Your task to perform on an android device: Open settings on Google Maps Image 0: 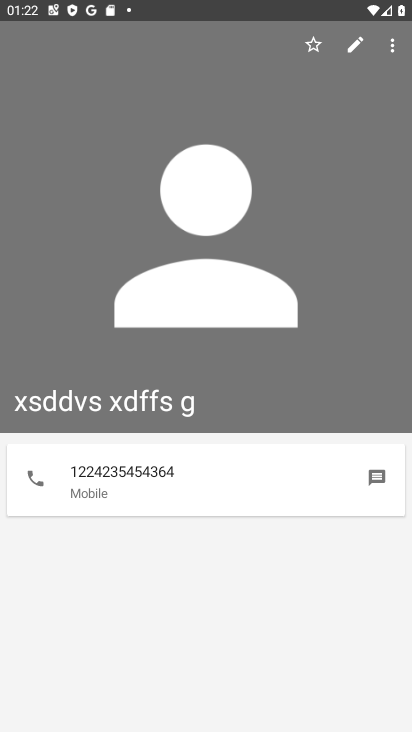
Step 0: press home button
Your task to perform on an android device: Open settings on Google Maps Image 1: 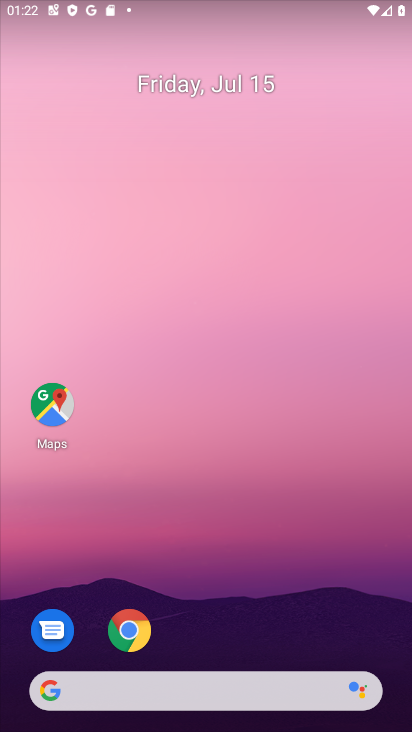
Step 1: click (258, 591)
Your task to perform on an android device: Open settings on Google Maps Image 2: 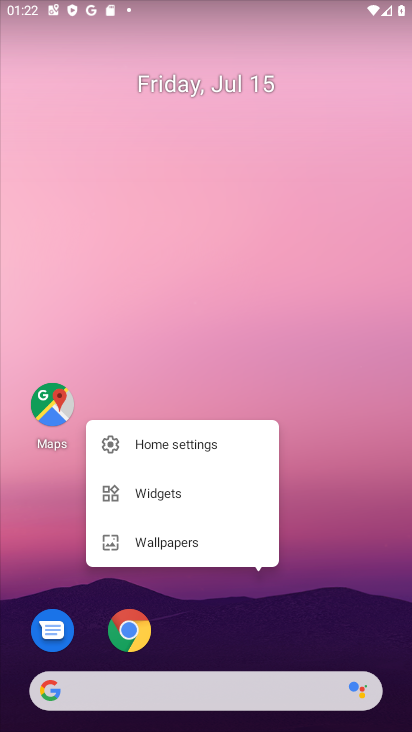
Step 2: click (35, 377)
Your task to perform on an android device: Open settings on Google Maps Image 3: 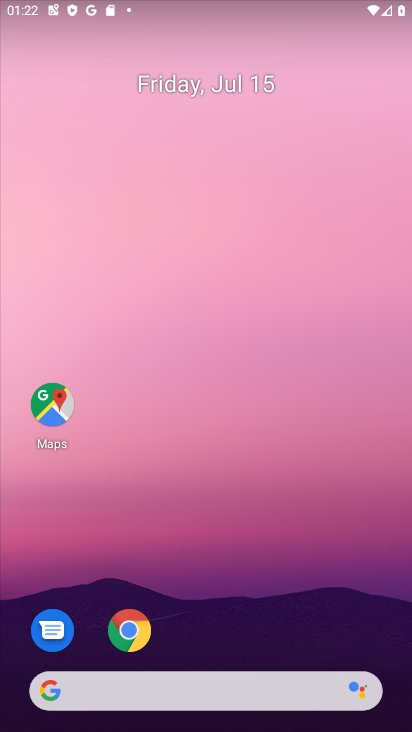
Step 3: click (35, 377)
Your task to perform on an android device: Open settings on Google Maps Image 4: 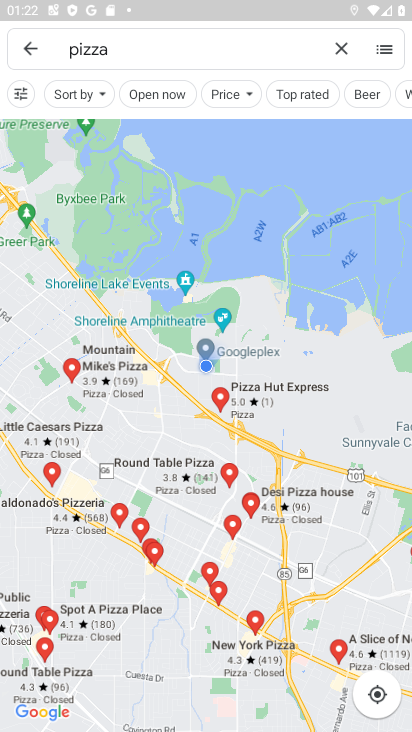
Step 4: task complete